Your task to perform on an android device: What's on my calendar tomorrow? Image 0: 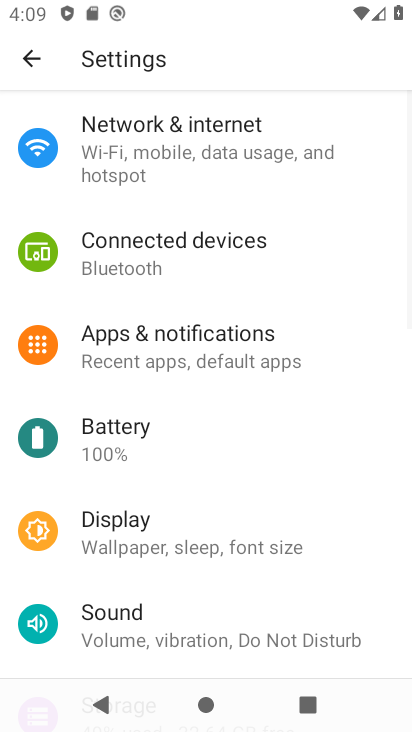
Step 0: press home button
Your task to perform on an android device: What's on my calendar tomorrow? Image 1: 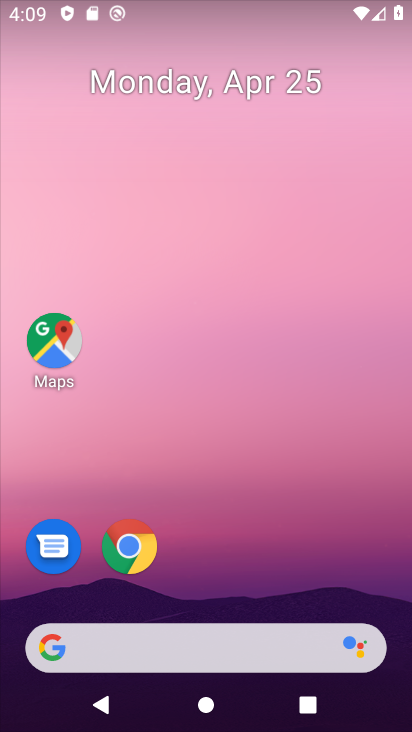
Step 1: drag from (196, 601) to (280, 6)
Your task to perform on an android device: What's on my calendar tomorrow? Image 2: 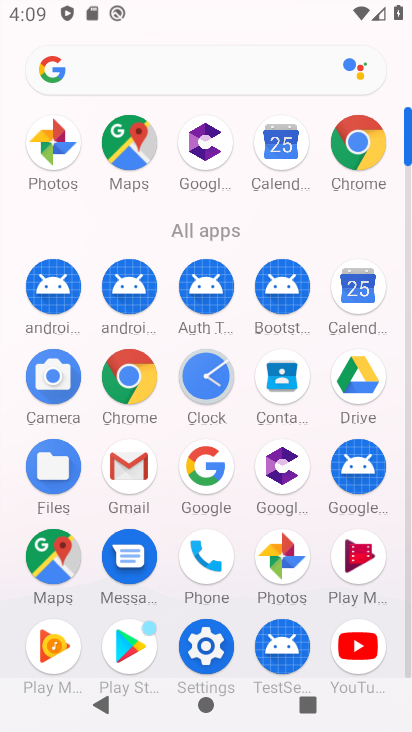
Step 2: click (363, 280)
Your task to perform on an android device: What's on my calendar tomorrow? Image 3: 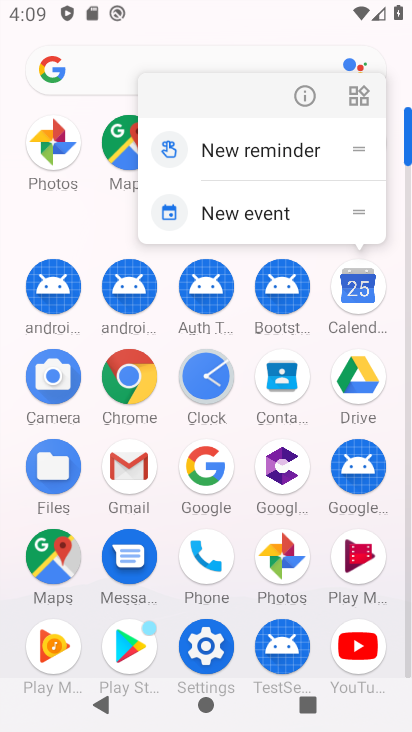
Step 3: click (343, 323)
Your task to perform on an android device: What's on my calendar tomorrow? Image 4: 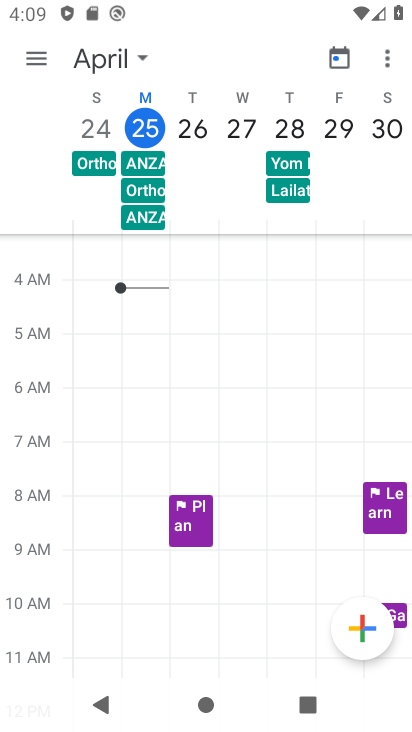
Step 4: click (176, 135)
Your task to perform on an android device: What's on my calendar tomorrow? Image 5: 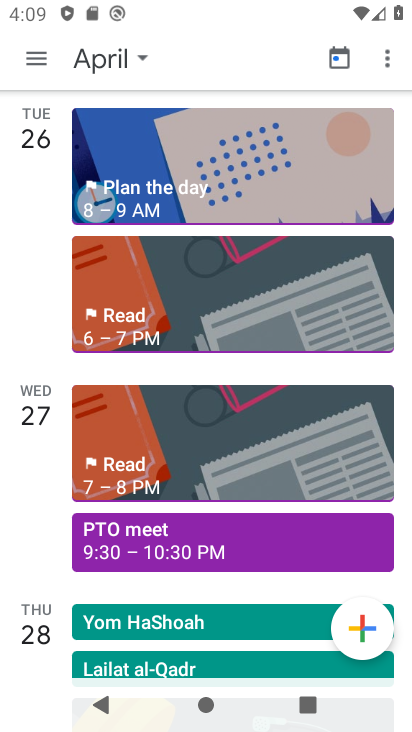
Step 5: task complete